Your task to perform on an android device: open sync settings in chrome Image 0: 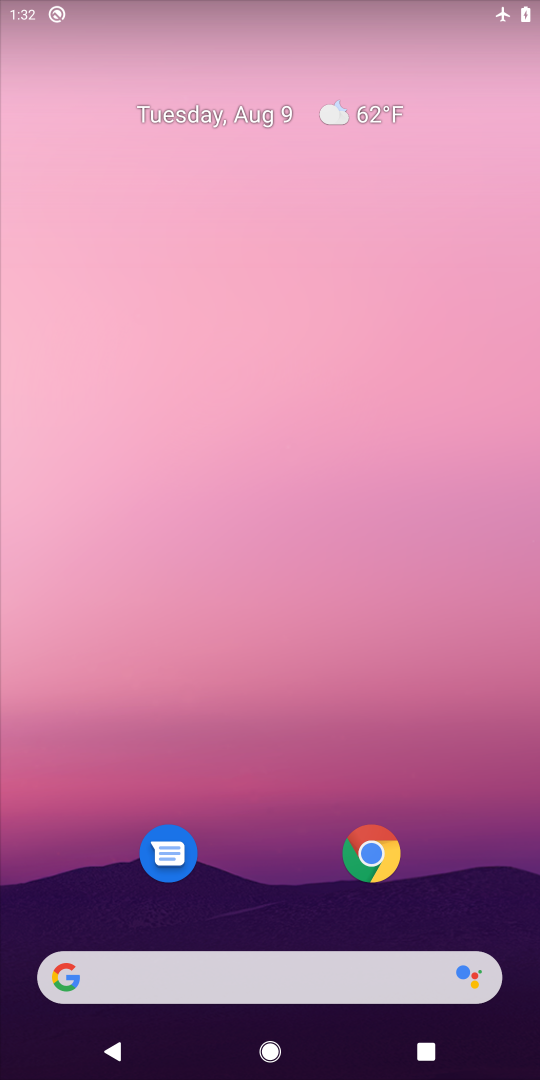
Step 0: click (358, 855)
Your task to perform on an android device: open sync settings in chrome Image 1: 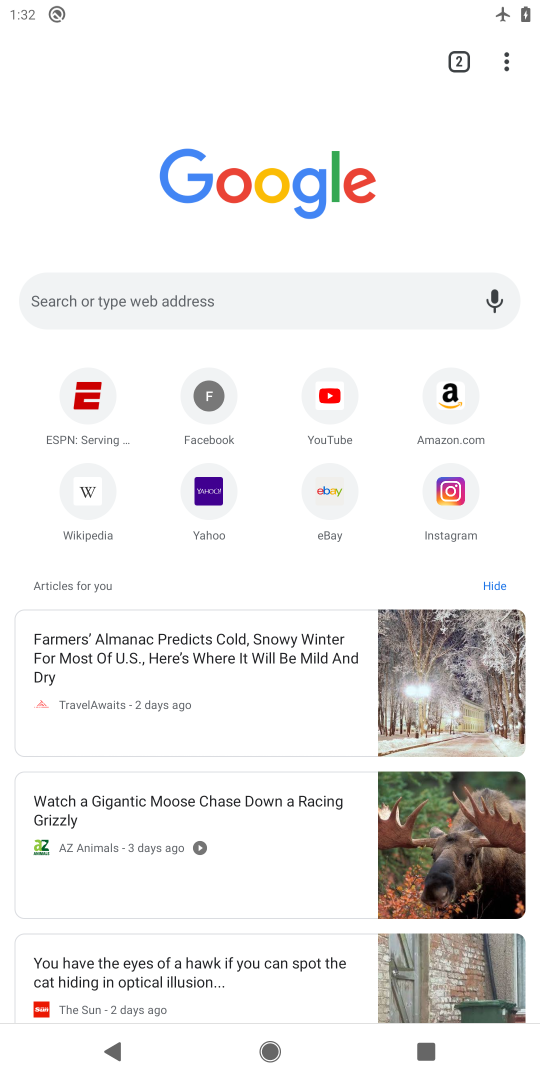
Step 1: drag from (499, 70) to (273, 586)
Your task to perform on an android device: open sync settings in chrome Image 2: 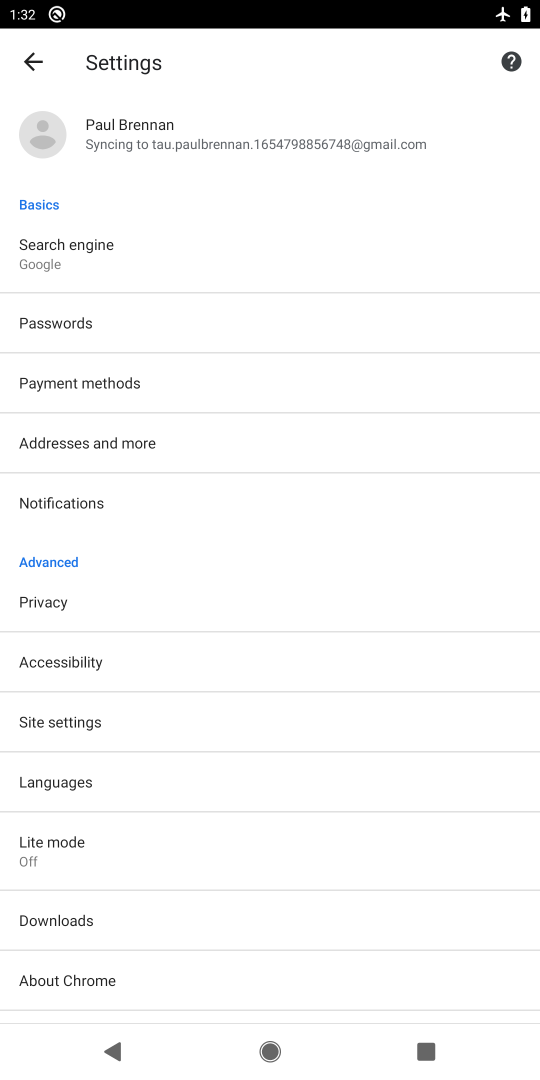
Step 2: click (56, 719)
Your task to perform on an android device: open sync settings in chrome Image 3: 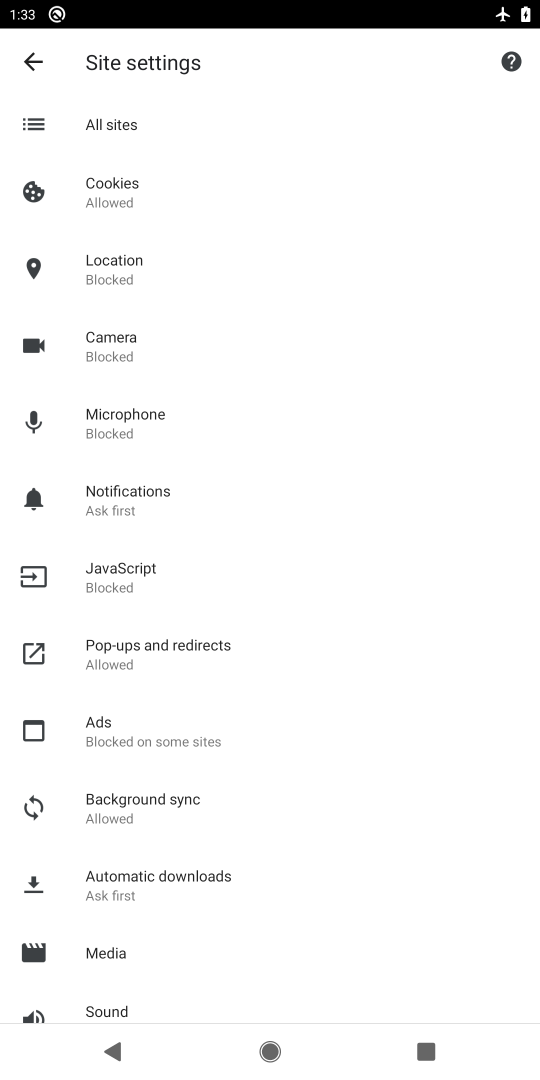
Step 3: click (139, 810)
Your task to perform on an android device: open sync settings in chrome Image 4: 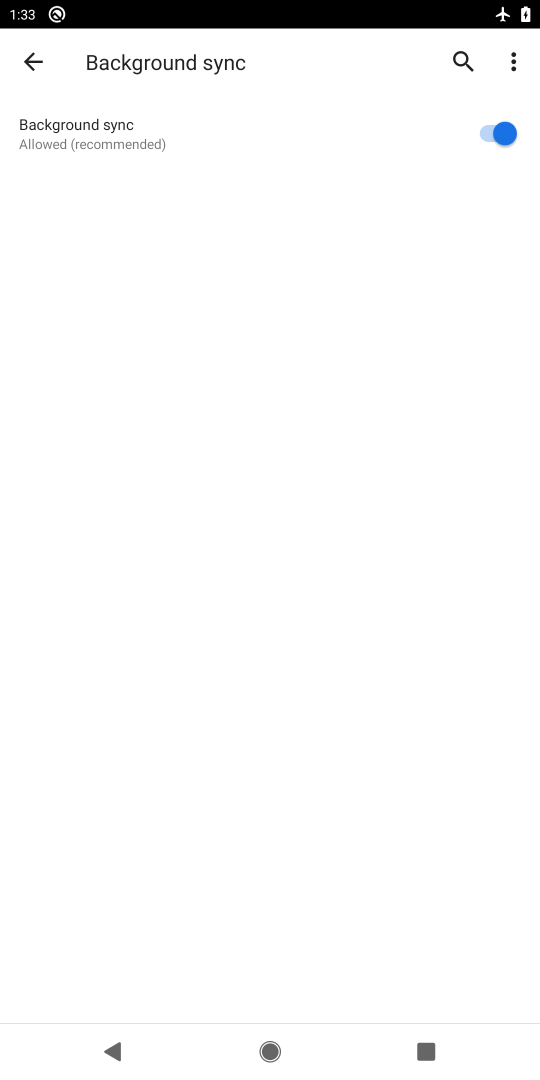
Step 4: task complete